Your task to perform on an android device: check android version Image 0: 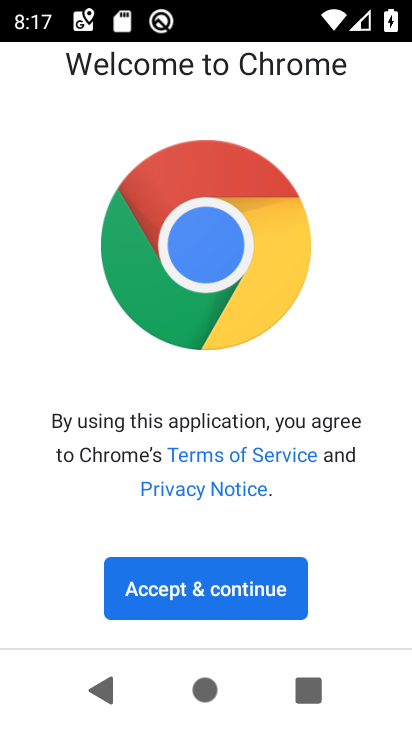
Step 0: press home button
Your task to perform on an android device: check android version Image 1: 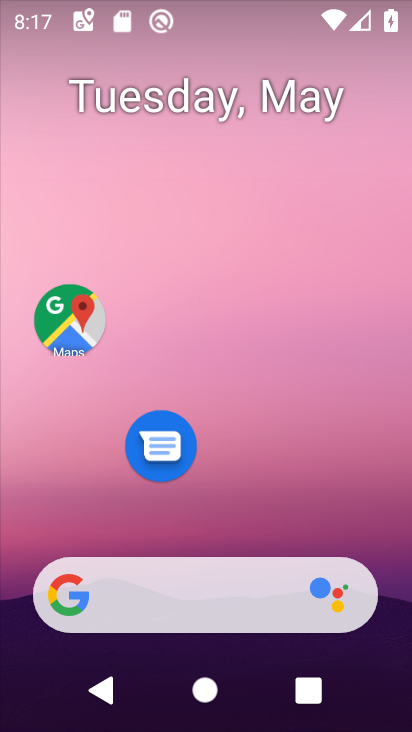
Step 1: drag from (226, 518) to (407, 34)
Your task to perform on an android device: check android version Image 2: 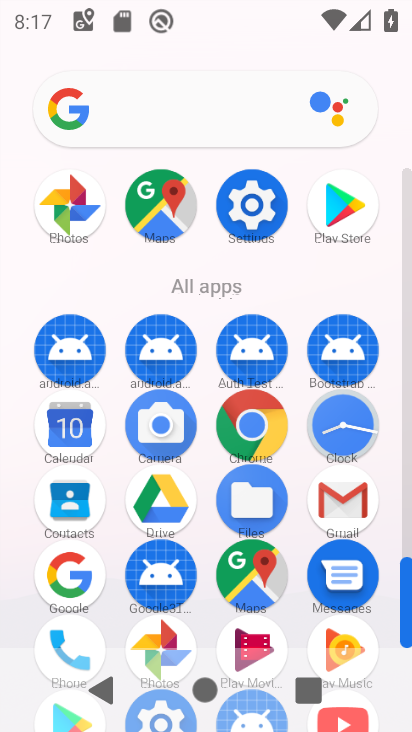
Step 2: click (236, 192)
Your task to perform on an android device: check android version Image 3: 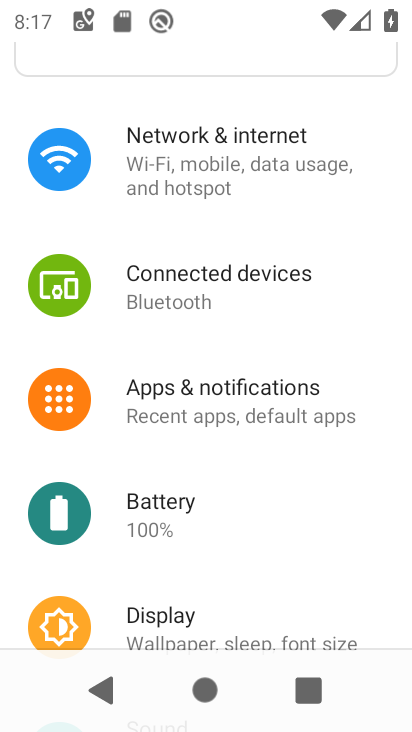
Step 3: drag from (234, 517) to (188, 10)
Your task to perform on an android device: check android version Image 4: 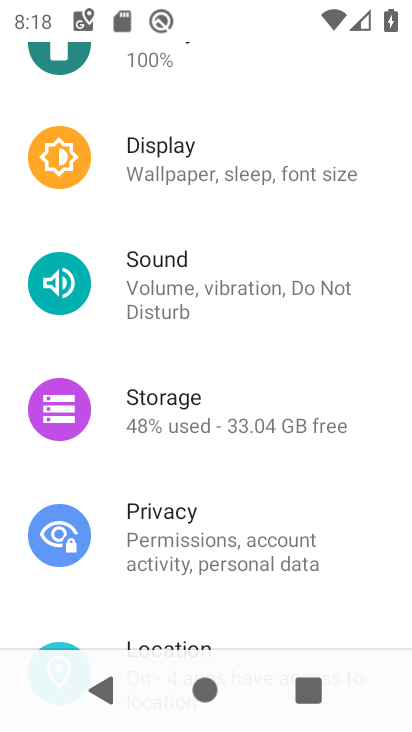
Step 4: drag from (198, 563) to (196, 48)
Your task to perform on an android device: check android version Image 5: 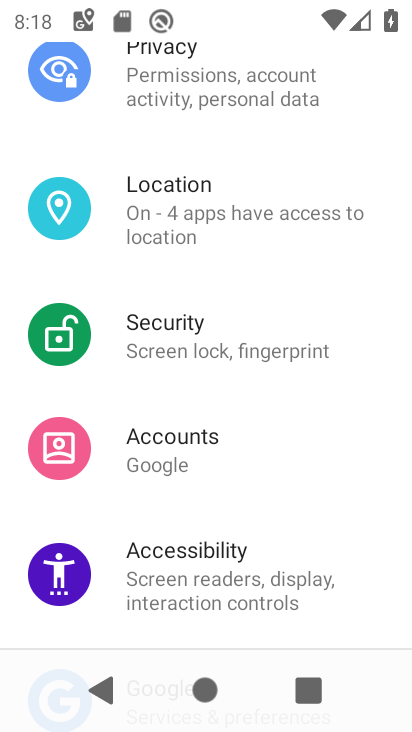
Step 5: drag from (238, 532) to (198, 32)
Your task to perform on an android device: check android version Image 6: 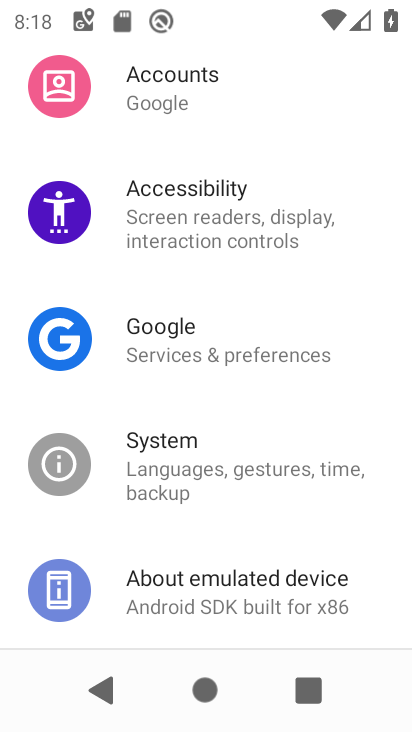
Step 6: click (248, 595)
Your task to perform on an android device: check android version Image 7: 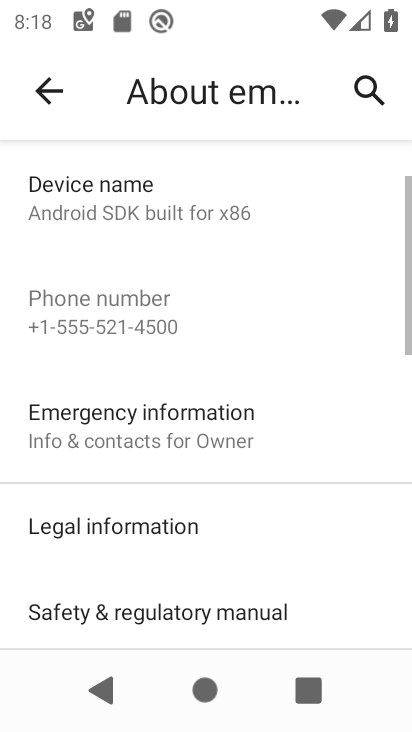
Step 7: drag from (202, 543) to (138, 4)
Your task to perform on an android device: check android version Image 8: 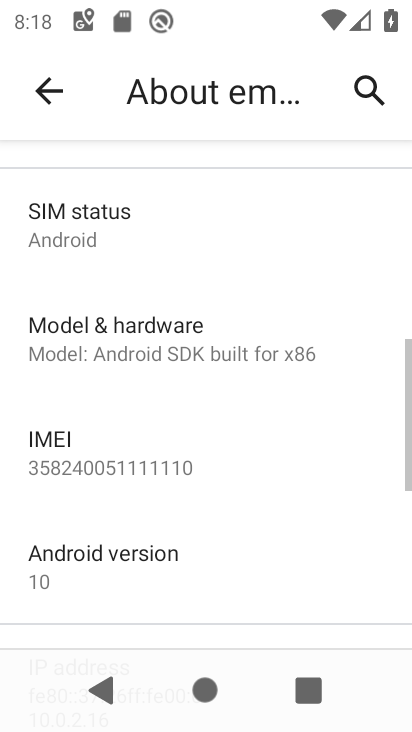
Step 8: click (135, 561)
Your task to perform on an android device: check android version Image 9: 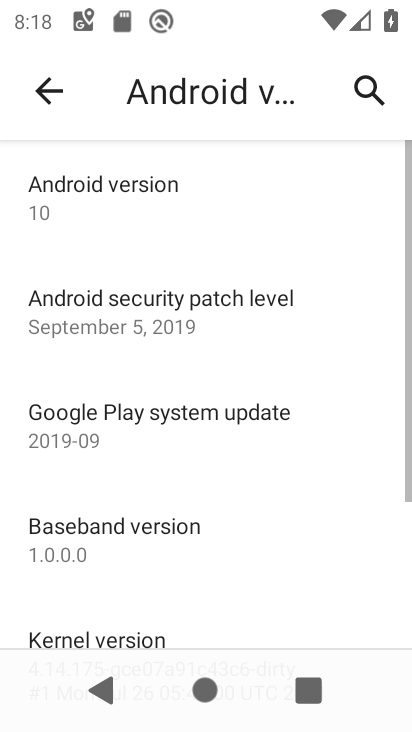
Step 9: click (94, 186)
Your task to perform on an android device: check android version Image 10: 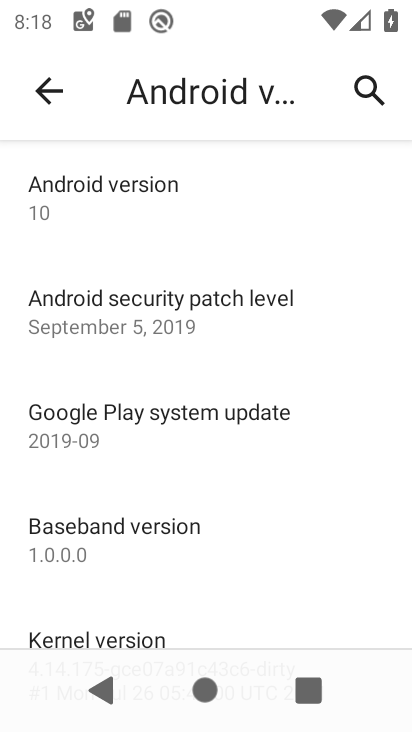
Step 10: task complete